Your task to perform on an android device: Go to battery settings Image 0: 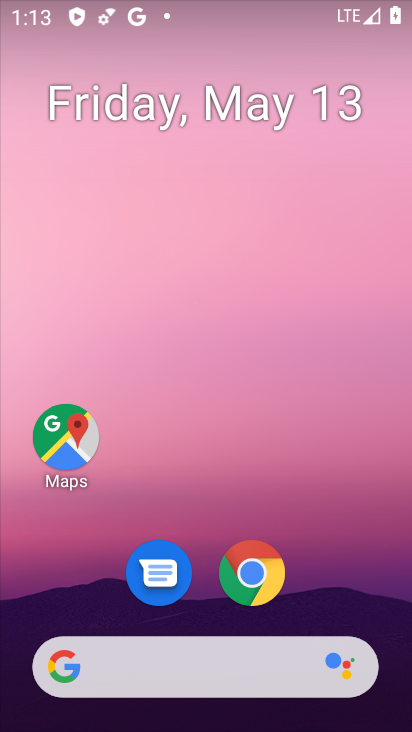
Step 0: drag from (181, 620) to (201, 131)
Your task to perform on an android device: Go to battery settings Image 1: 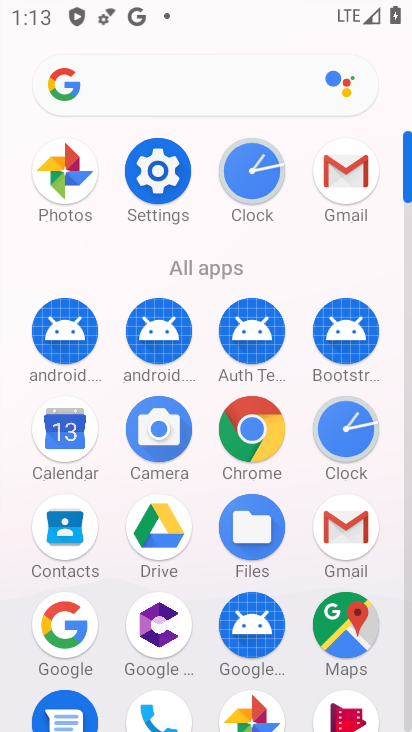
Step 1: click (165, 170)
Your task to perform on an android device: Go to battery settings Image 2: 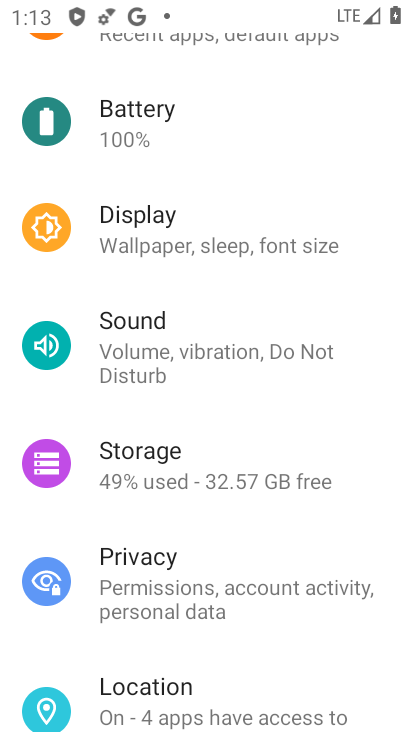
Step 2: click (114, 131)
Your task to perform on an android device: Go to battery settings Image 3: 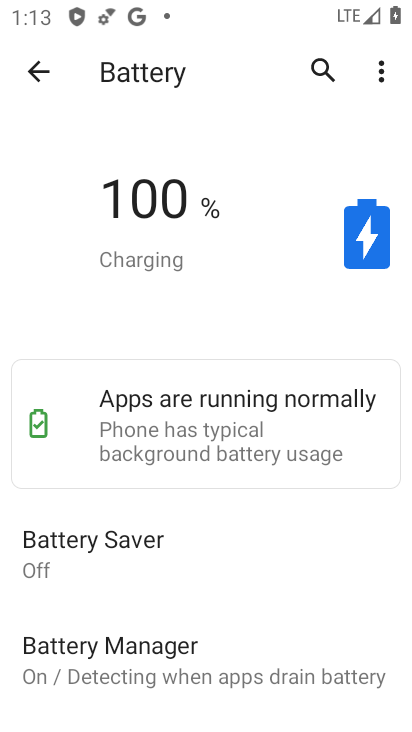
Step 3: task complete